Your task to perform on an android device: Go to Google Image 0: 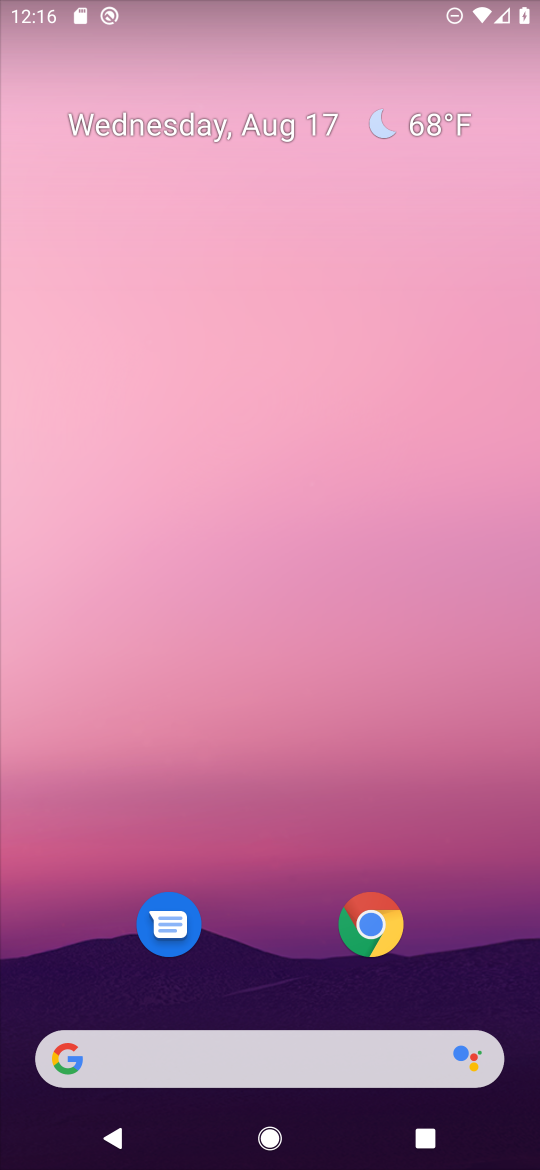
Step 0: click (275, 1054)
Your task to perform on an android device: Go to Google Image 1: 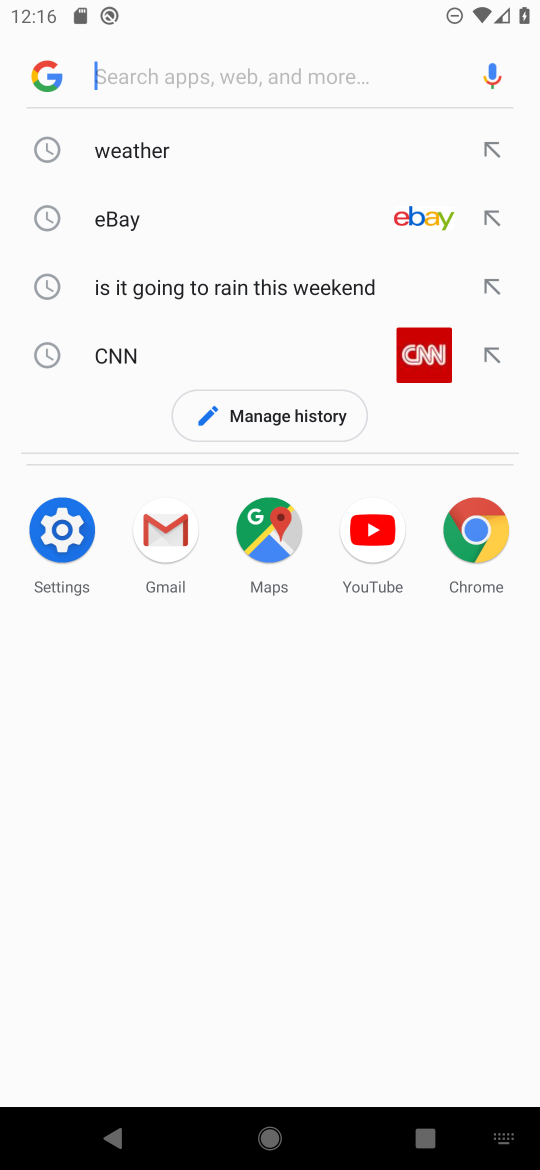
Step 1: task complete